Your task to perform on an android device: Show me productivity apps on the Play Store Image 0: 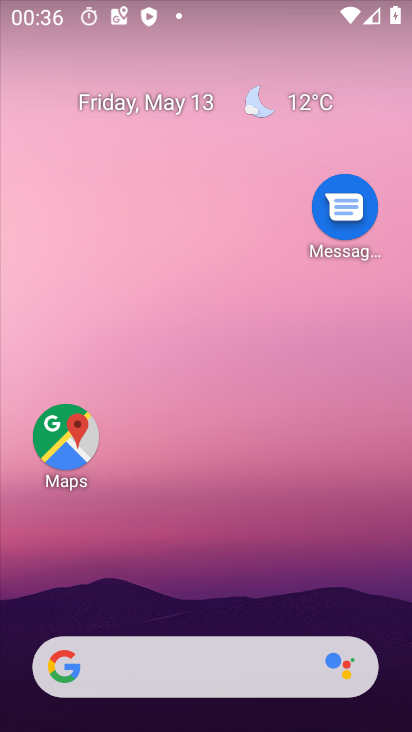
Step 0: press home button
Your task to perform on an android device: Show me productivity apps on the Play Store Image 1: 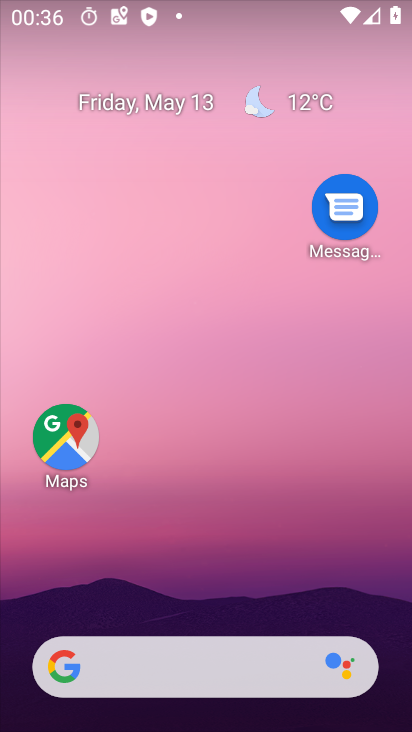
Step 1: drag from (227, 397) to (322, 12)
Your task to perform on an android device: Show me productivity apps on the Play Store Image 2: 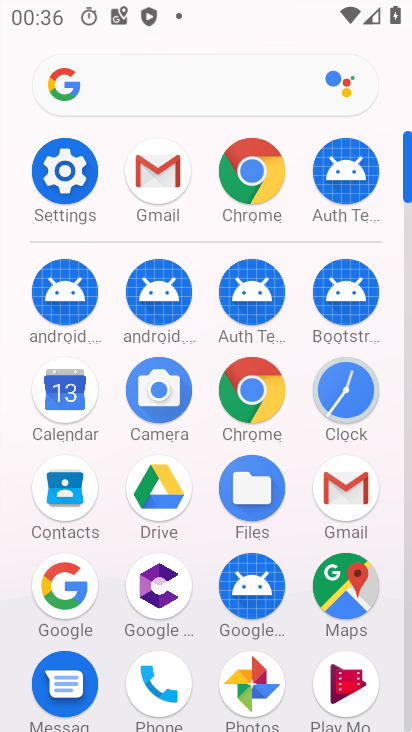
Step 2: click (402, 562)
Your task to perform on an android device: Show me productivity apps on the Play Store Image 3: 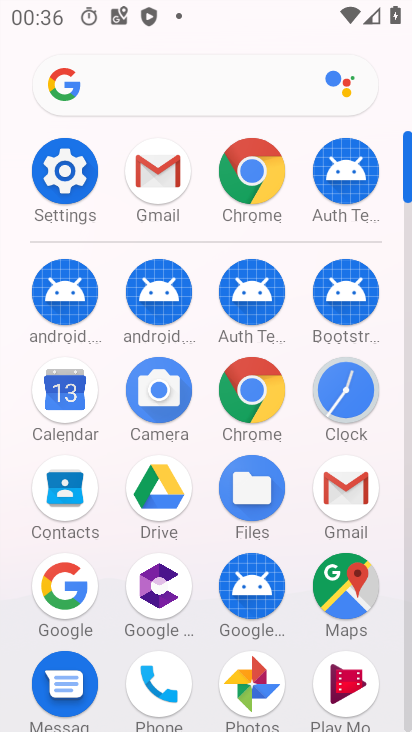
Step 3: drag from (410, 587) to (400, 731)
Your task to perform on an android device: Show me productivity apps on the Play Store Image 4: 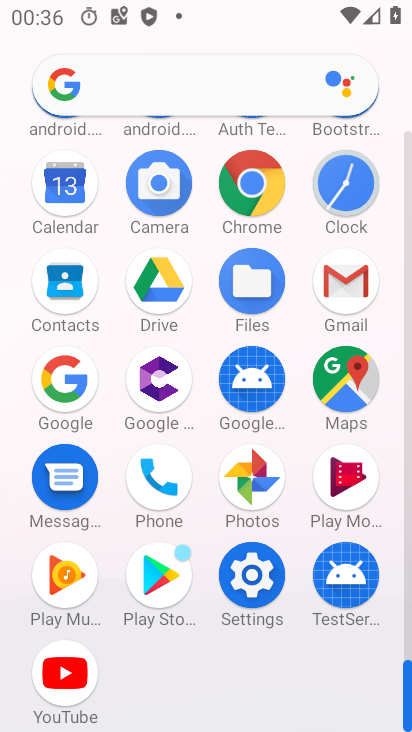
Step 4: click (164, 568)
Your task to perform on an android device: Show me productivity apps on the Play Store Image 5: 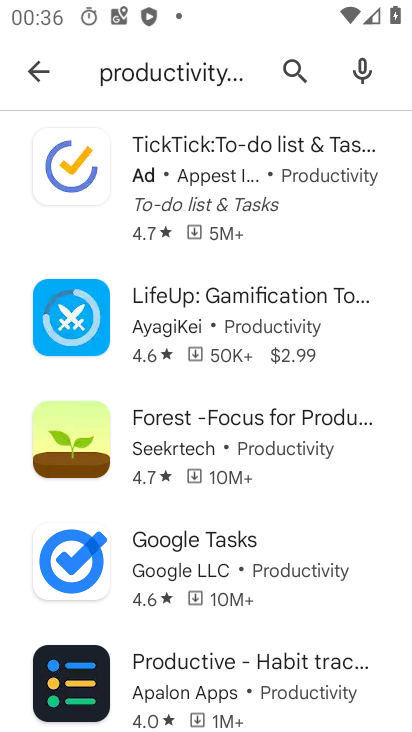
Step 5: task complete